Your task to perform on an android device: Go to Reddit.com Image 0: 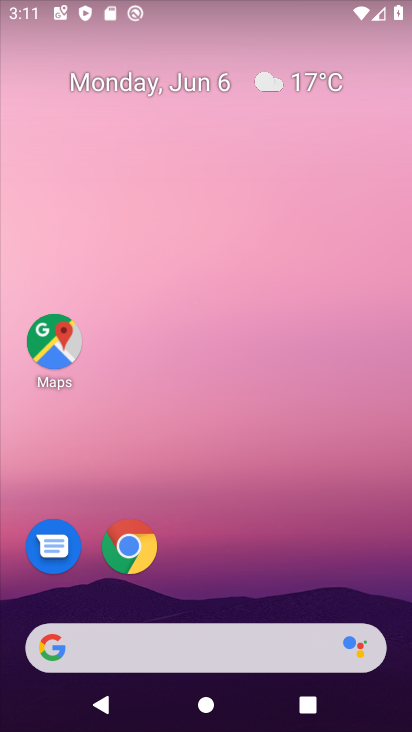
Step 0: click (240, 635)
Your task to perform on an android device: Go to Reddit.com Image 1: 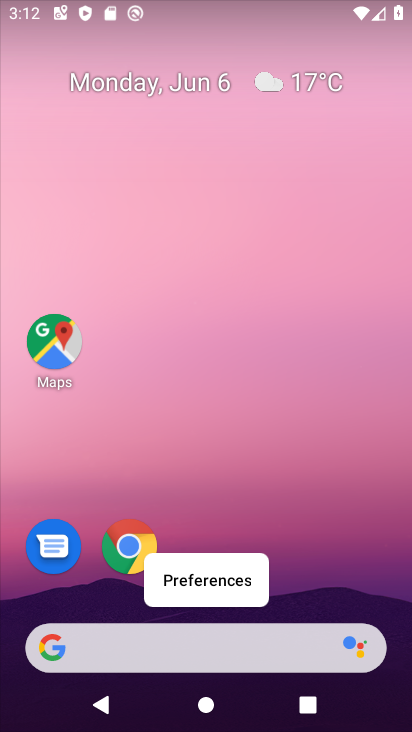
Step 1: click (201, 647)
Your task to perform on an android device: Go to Reddit.com Image 2: 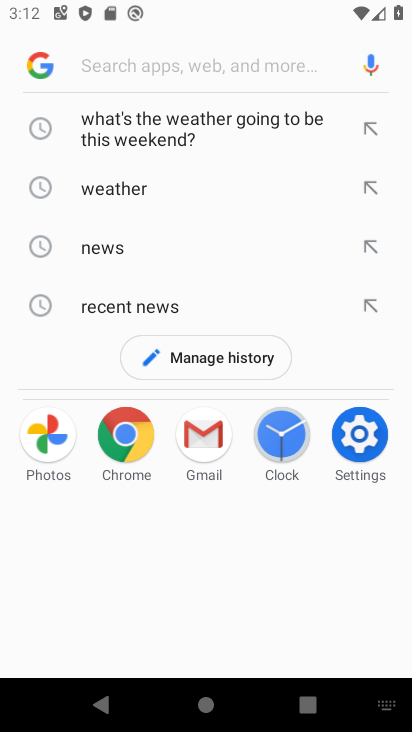
Step 2: type "reddit"
Your task to perform on an android device: Go to Reddit.com Image 3: 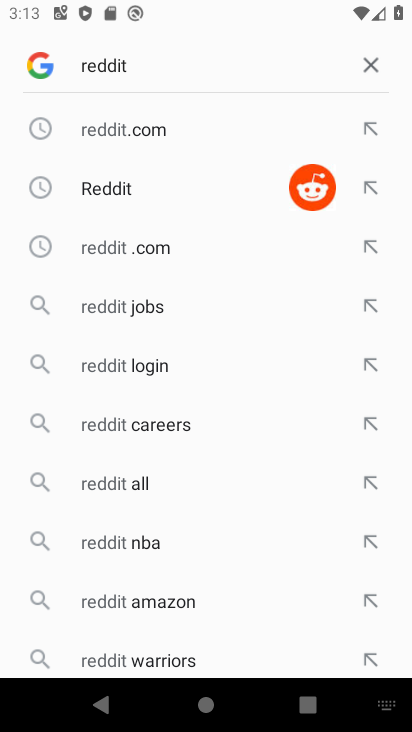
Step 3: click (122, 131)
Your task to perform on an android device: Go to Reddit.com Image 4: 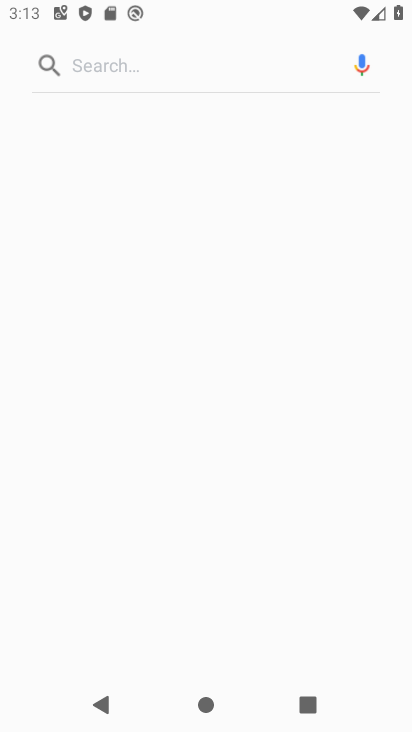
Step 4: task complete